Your task to perform on an android device: find which apps use the phone's location Image 0: 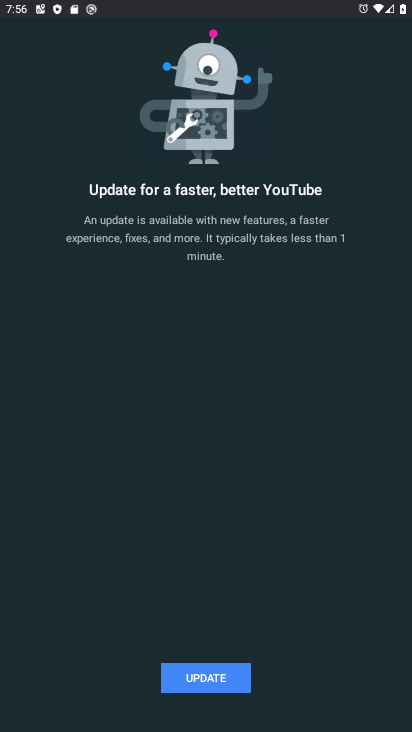
Step 0: press home button
Your task to perform on an android device: find which apps use the phone's location Image 1: 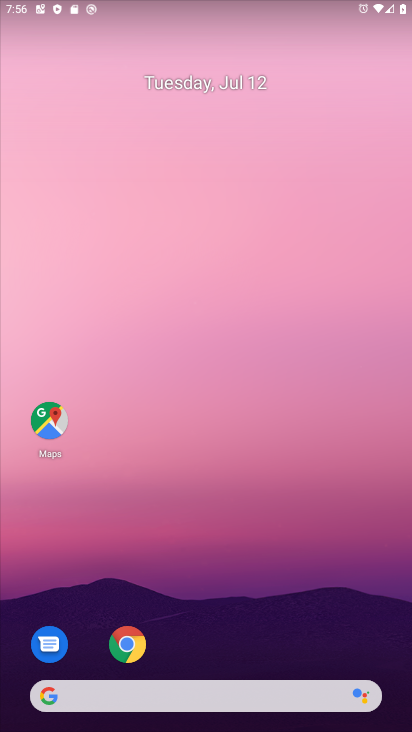
Step 1: drag from (241, 515) to (311, 126)
Your task to perform on an android device: find which apps use the phone's location Image 2: 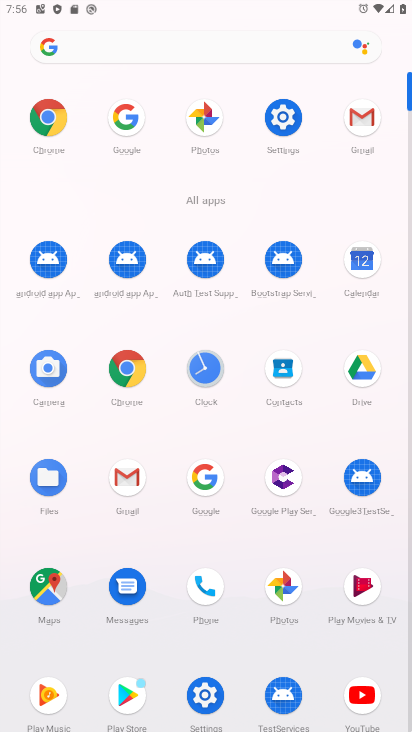
Step 2: click (276, 105)
Your task to perform on an android device: find which apps use the phone's location Image 3: 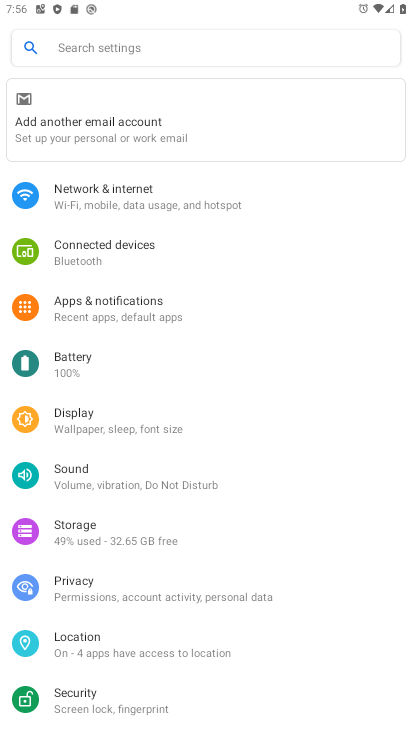
Step 3: click (75, 649)
Your task to perform on an android device: find which apps use the phone's location Image 4: 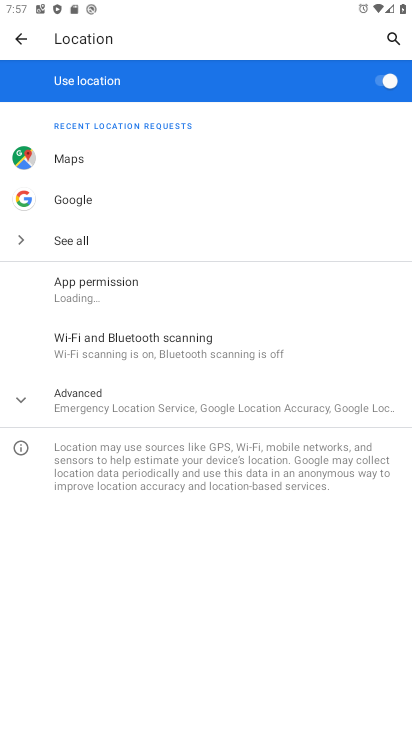
Step 4: click (90, 279)
Your task to perform on an android device: find which apps use the phone's location Image 5: 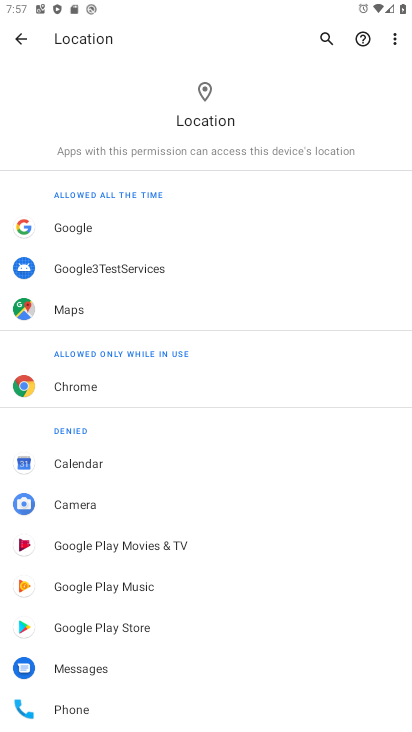
Step 5: task complete